Your task to perform on an android device: Show me popular games on the Play Store Image 0: 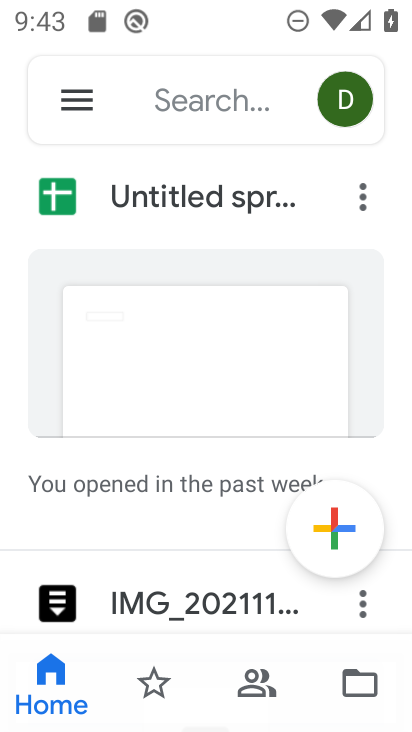
Step 0: press home button
Your task to perform on an android device: Show me popular games on the Play Store Image 1: 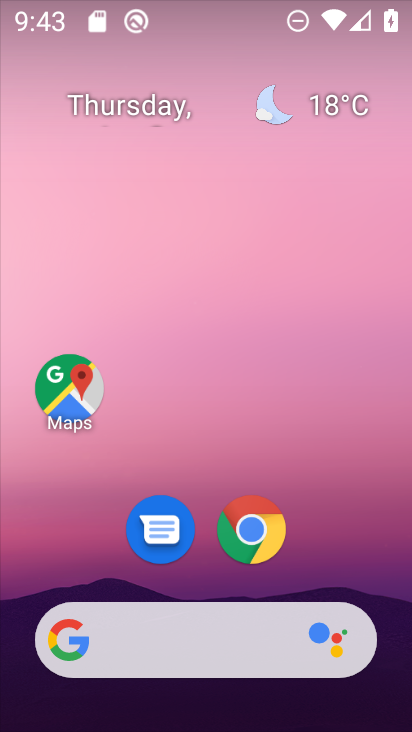
Step 1: drag from (393, 701) to (296, 72)
Your task to perform on an android device: Show me popular games on the Play Store Image 2: 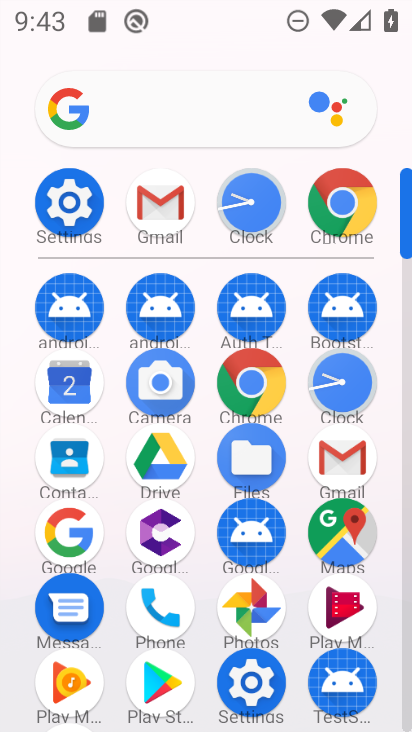
Step 2: click (157, 683)
Your task to perform on an android device: Show me popular games on the Play Store Image 3: 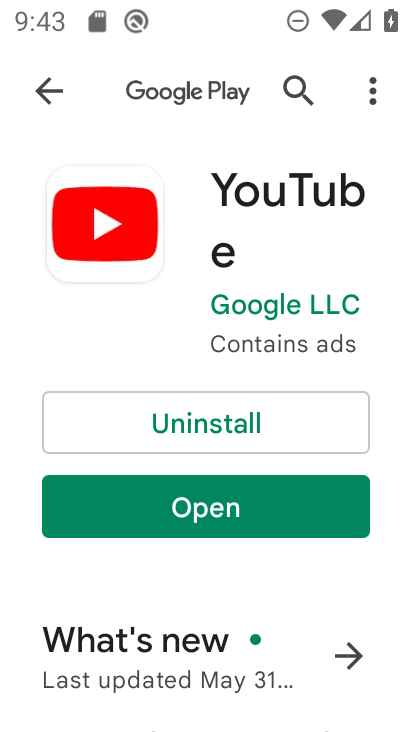
Step 3: click (34, 89)
Your task to perform on an android device: Show me popular games on the Play Store Image 4: 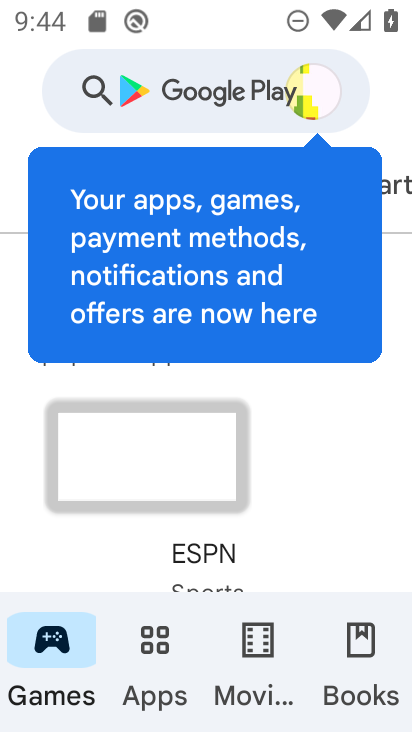
Step 4: click (219, 84)
Your task to perform on an android device: Show me popular games on the Play Store Image 5: 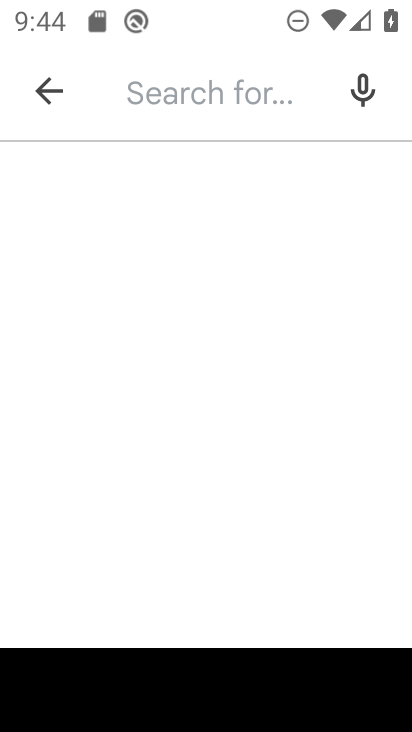
Step 5: click (335, 514)
Your task to perform on an android device: Show me popular games on the Play Store Image 6: 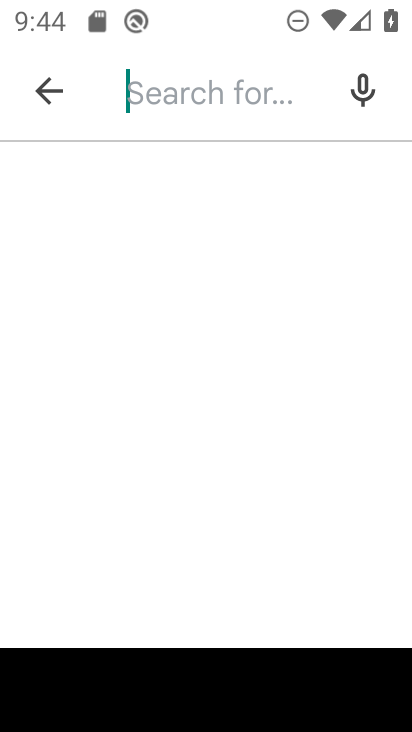
Step 6: type "Amazon"
Your task to perform on an android device: Show me popular games on the Play Store Image 7: 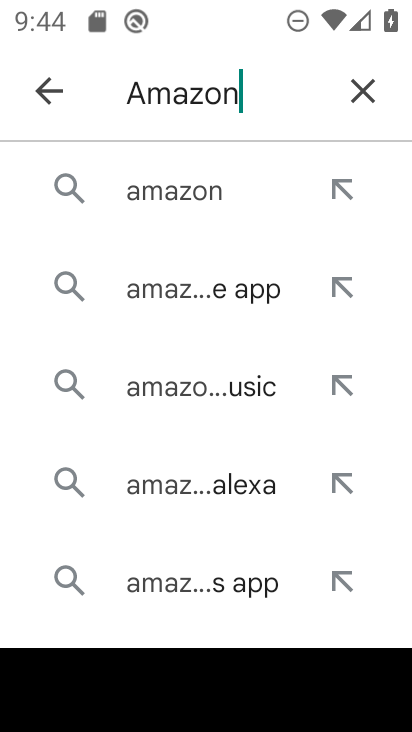
Step 7: click (365, 96)
Your task to perform on an android device: Show me popular games on the Play Store Image 8: 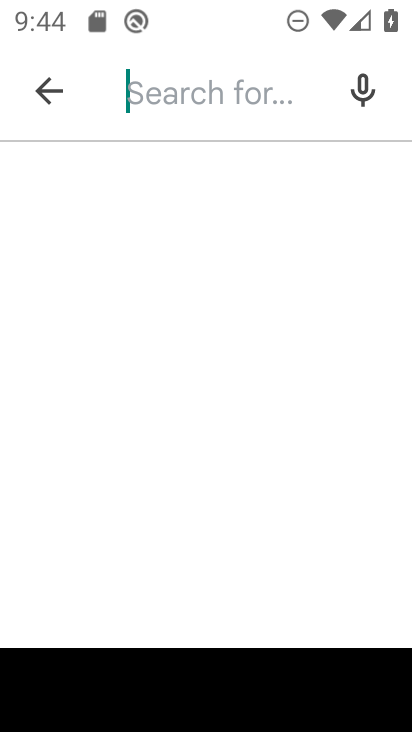
Step 8: type "popular games"
Your task to perform on an android device: Show me popular games on the Play Store Image 9: 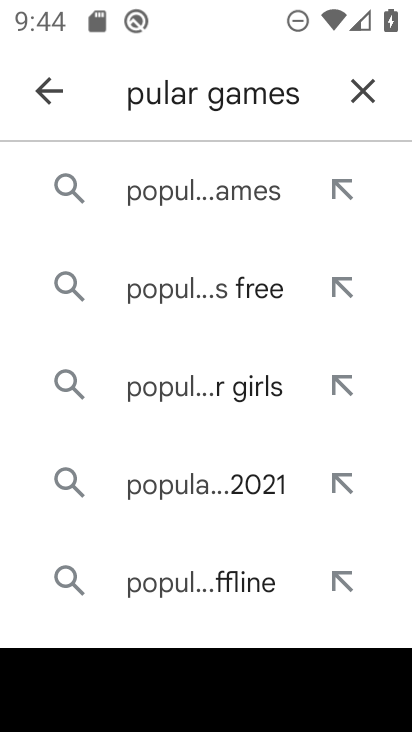
Step 9: click (234, 202)
Your task to perform on an android device: Show me popular games on the Play Store Image 10: 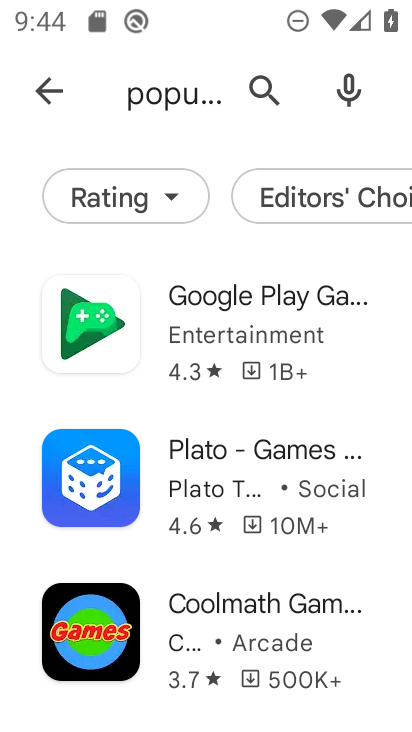
Step 10: task complete